Your task to perform on an android device: Go to Yahoo.com Image 0: 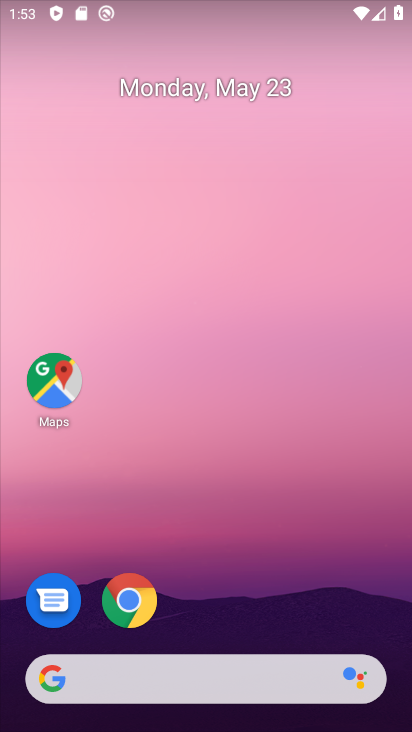
Step 0: drag from (279, 622) to (281, 320)
Your task to perform on an android device: Go to Yahoo.com Image 1: 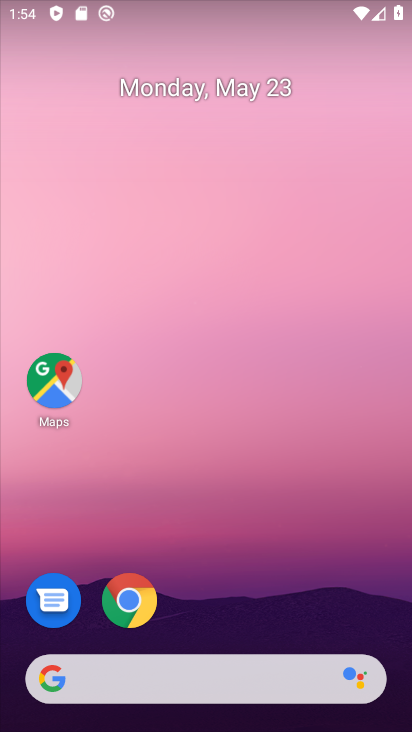
Step 1: click (143, 603)
Your task to perform on an android device: Go to Yahoo.com Image 2: 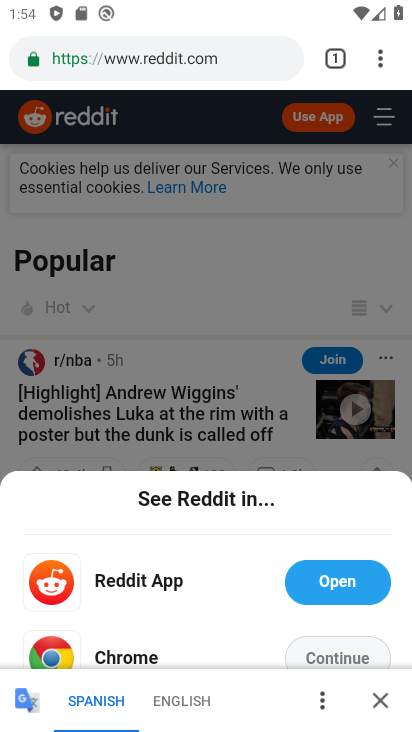
Step 2: click (381, 40)
Your task to perform on an android device: Go to Yahoo.com Image 3: 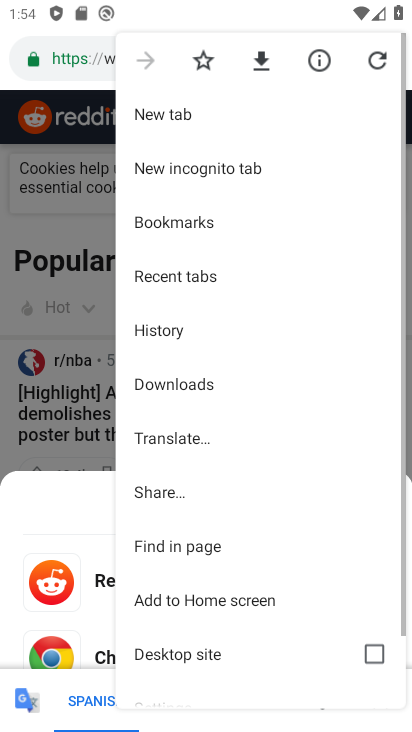
Step 3: click (170, 123)
Your task to perform on an android device: Go to Yahoo.com Image 4: 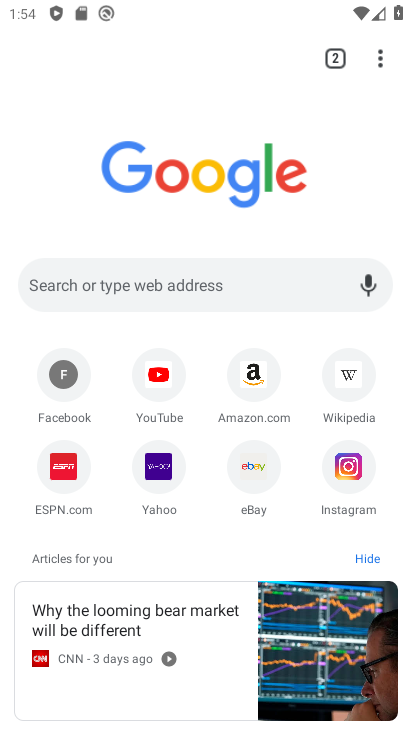
Step 4: click (151, 483)
Your task to perform on an android device: Go to Yahoo.com Image 5: 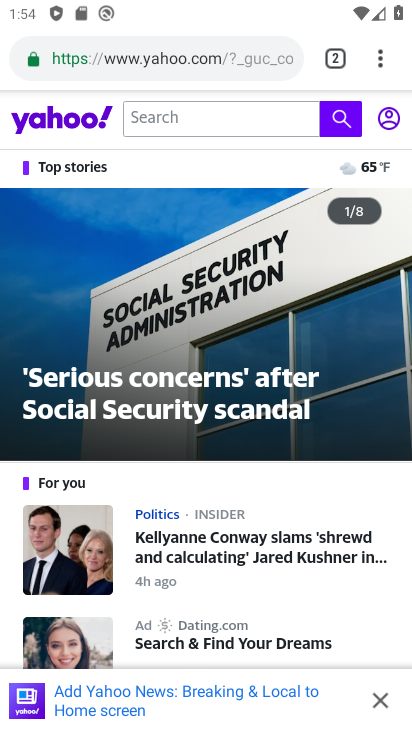
Step 5: task complete